Your task to perform on an android device: Open the map Image 0: 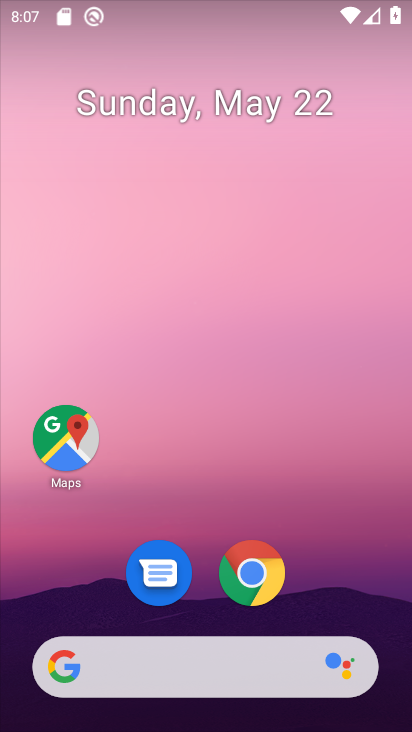
Step 0: drag from (187, 612) to (301, 113)
Your task to perform on an android device: Open the map Image 1: 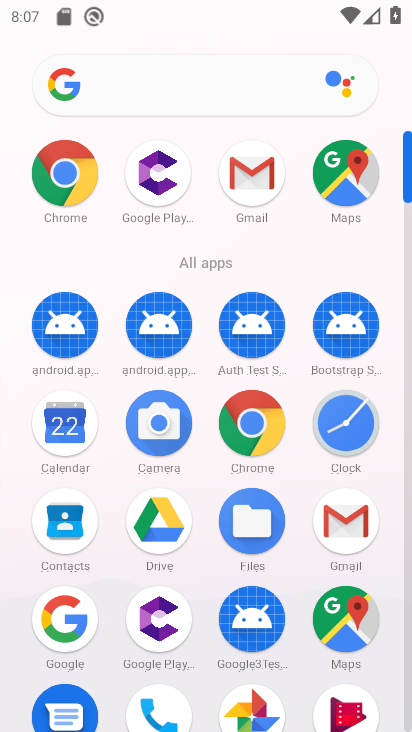
Step 1: click (343, 590)
Your task to perform on an android device: Open the map Image 2: 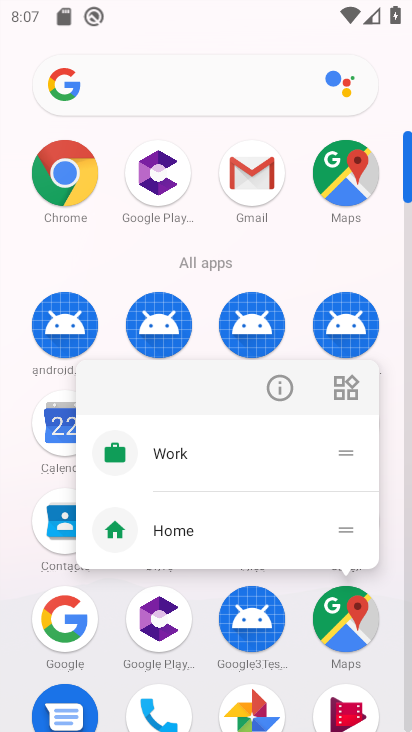
Step 2: click (244, 384)
Your task to perform on an android device: Open the map Image 3: 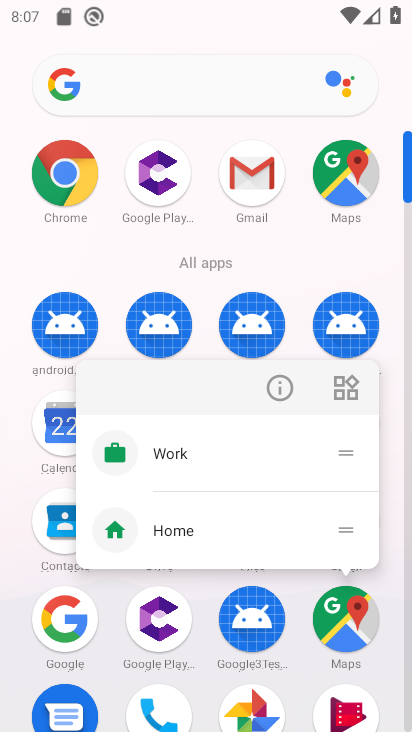
Step 3: click (270, 390)
Your task to perform on an android device: Open the map Image 4: 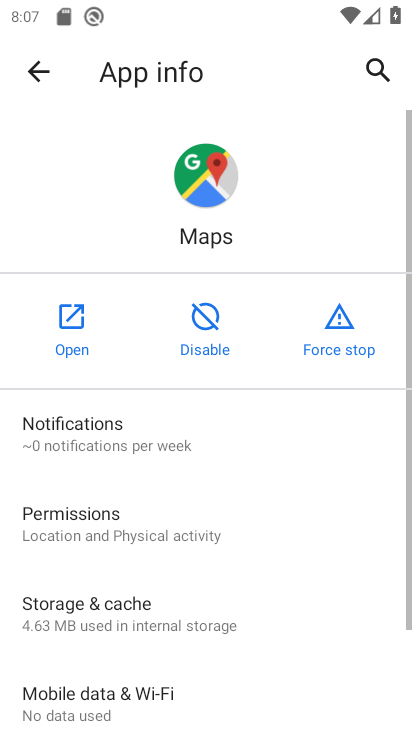
Step 4: click (81, 322)
Your task to perform on an android device: Open the map Image 5: 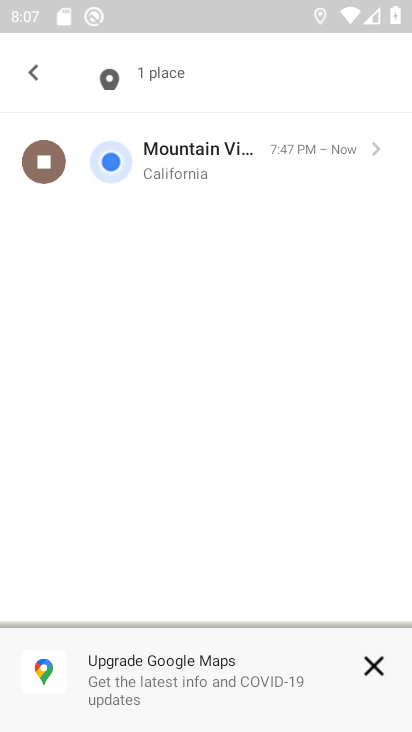
Step 5: task complete